Your task to perform on an android device: Open CNN.com Image 0: 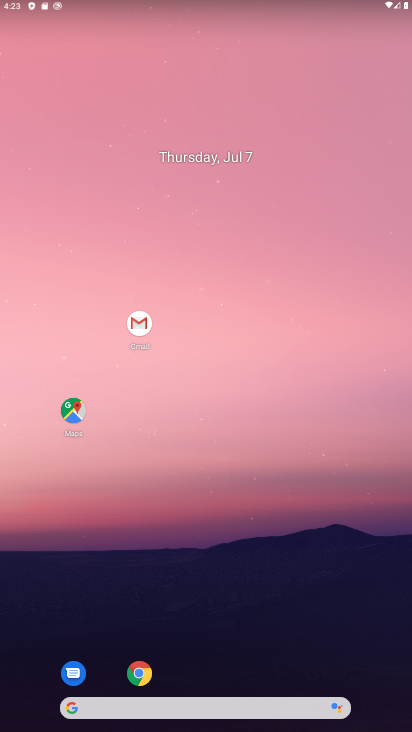
Step 0: click (135, 679)
Your task to perform on an android device: Open CNN.com Image 1: 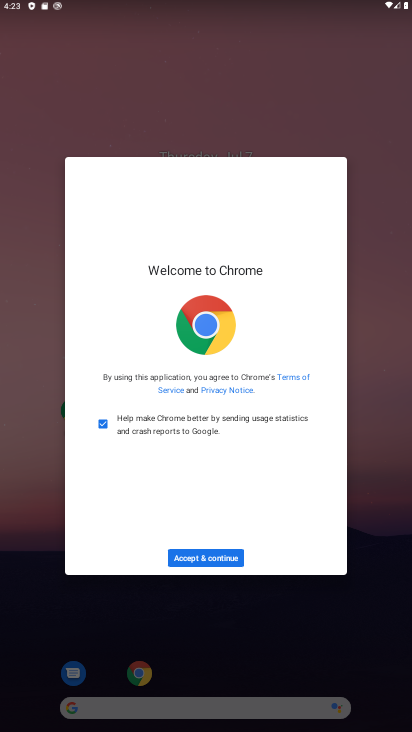
Step 1: click (206, 563)
Your task to perform on an android device: Open CNN.com Image 2: 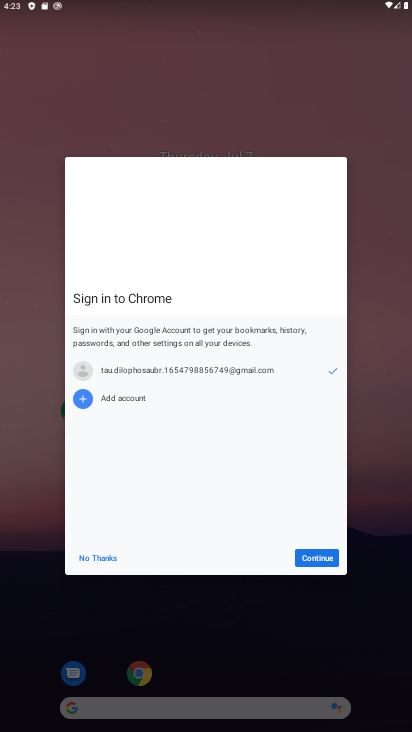
Step 2: click (326, 562)
Your task to perform on an android device: Open CNN.com Image 3: 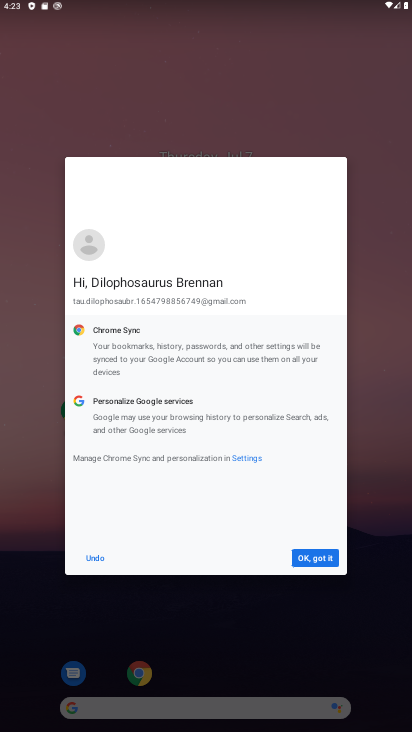
Step 3: click (319, 550)
Your task to perform on an android device: Open CNN.com Image 4: 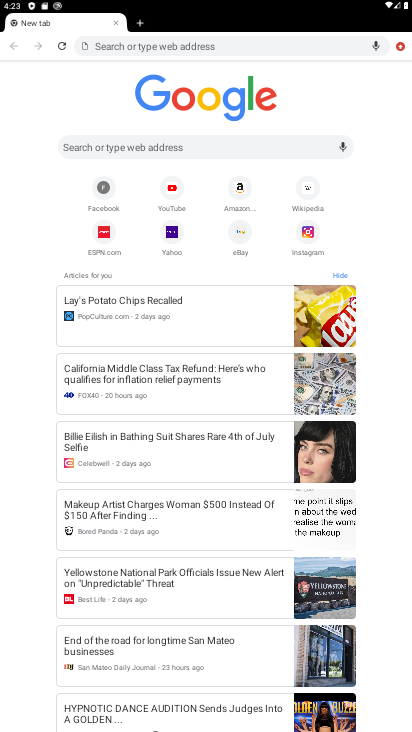
Step 4: click (227, 149)
Your task to perform on an android device: Open CNN.com Image 5: 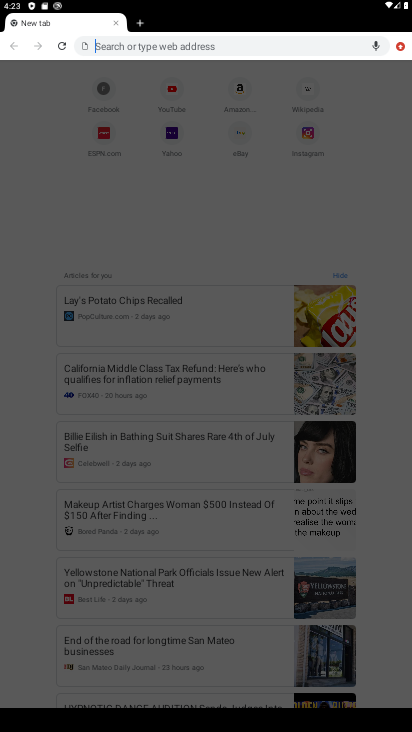
Step 5: type "cnn"
Your task to perform on an android device: Open CNN.com Image 6: 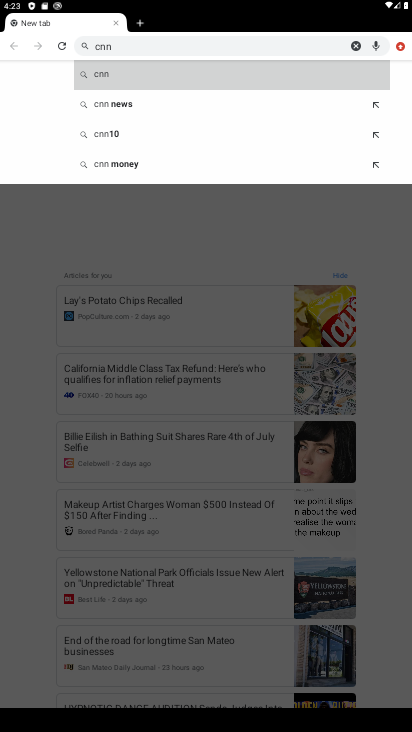
Step 6: click (122, 103)
Your task to perform on an android device: Open CNN.com Image 7: 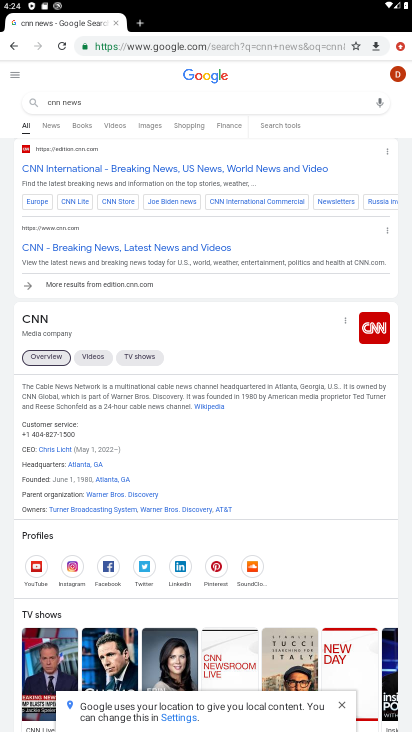
Step 7: click (121, 164)
Your task to perform on an android device: Open CNN.com Image 8: 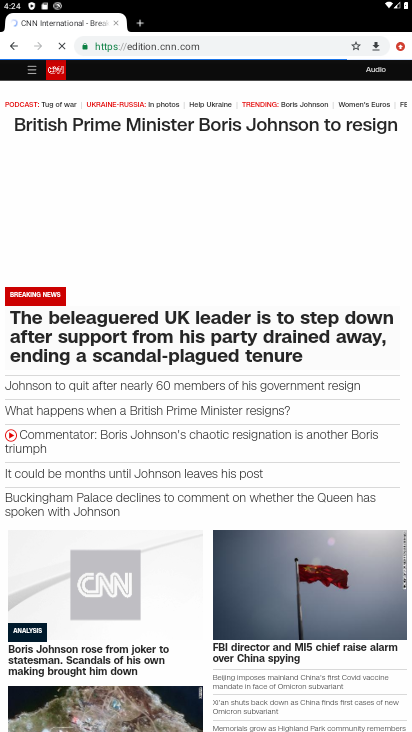
Step 8: task complete